Your task to perform on an android device: Go to Android settings Image 0: 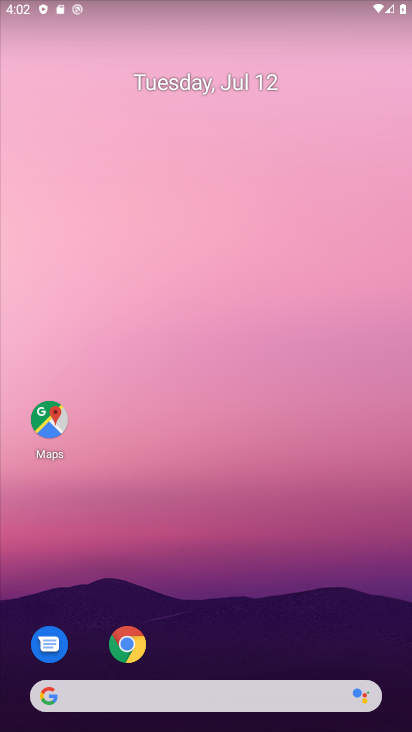
Step 0: drag from (185, 696) to (170, 242)
Your task to perform on an android device: Go to Android settings Image 1: 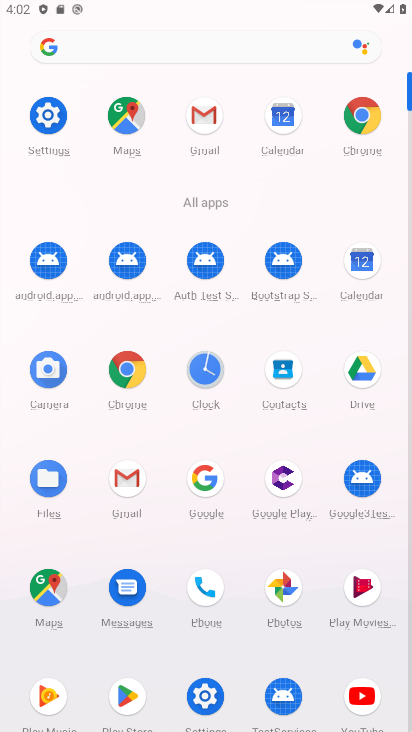
Step 1: click (52, 116)
Your task to perform on an android device: Go to Android settings Image 2: 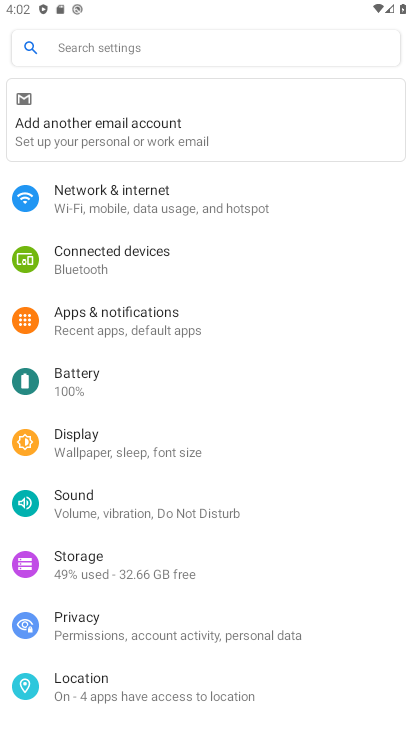
Step 2: task complete